Your task to perform on an android device: Search for Italian restaurants on Maps Image 0: 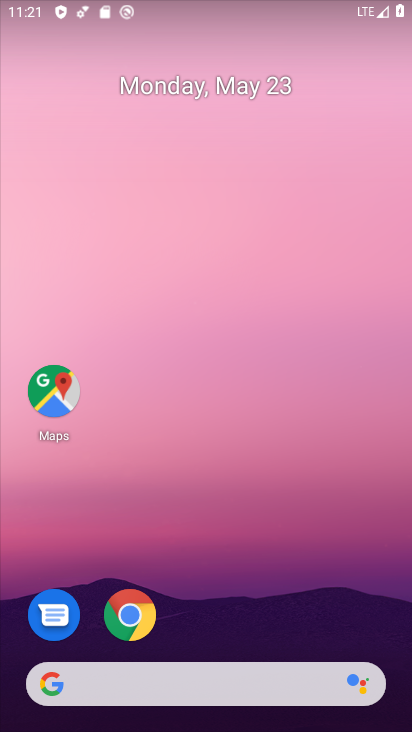
Step 0: click (126, 621)
Your task to perform on an android device: Search for Italian restaurants on Maps Image 1: 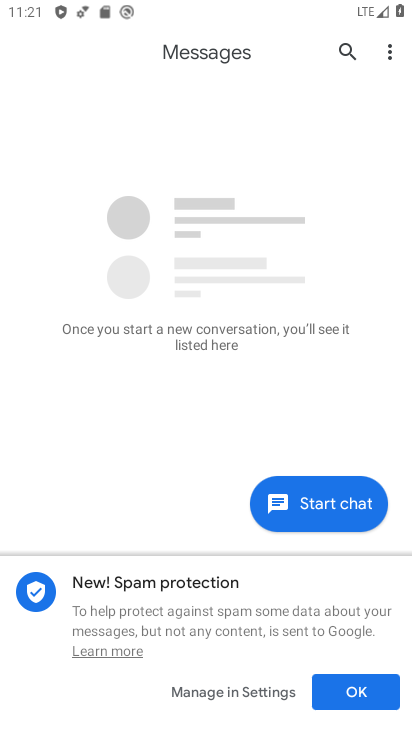
Step 1: press home button
Your task to perform on an android device: Search for Italian restaurants on Maps Image 2: 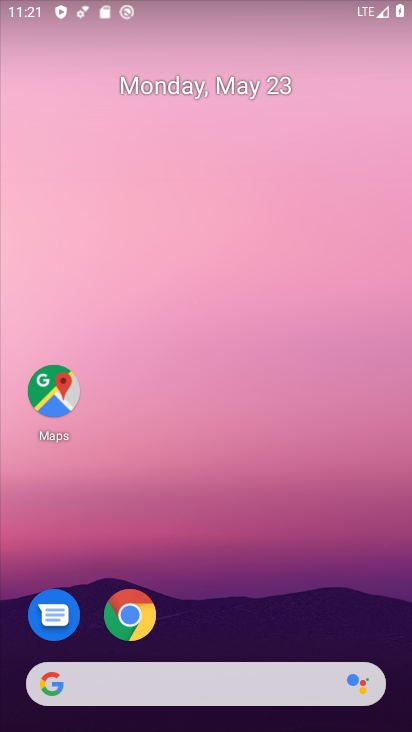
Step 2: click (57, 401)
Your task to perform on an android device: Search for Italian restaurants on Maps Image 3: 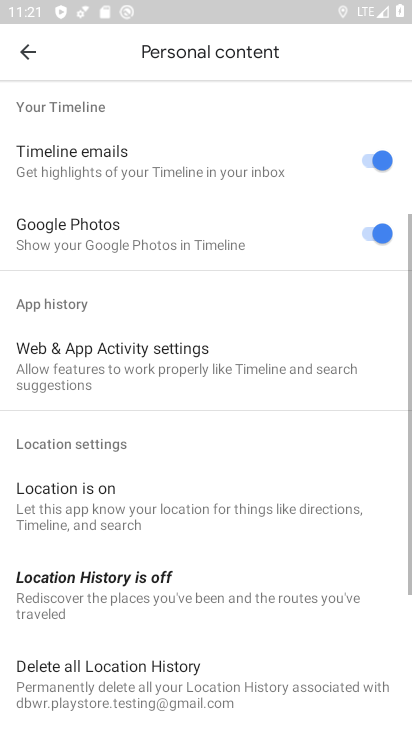
Step 3: click (29, 54)
Your task to perform on an android device: Search for Italian restaurants on Maps Image 4: 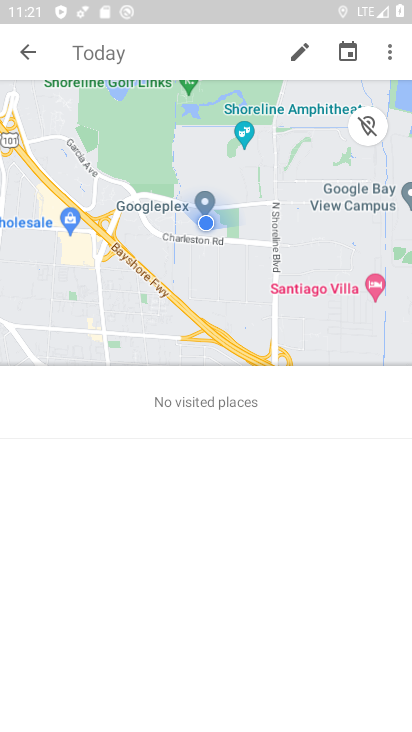
Step 4: click (29, 54)
Your task to perform on an android device: Search for Italian restaurants on Maps Image 5: 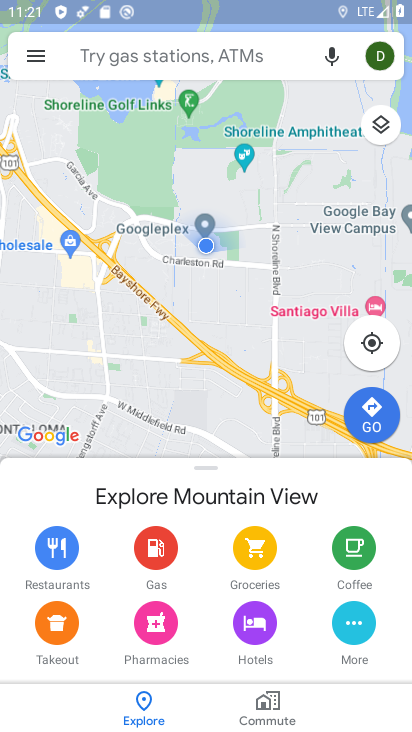
Step 5: click (228, 47)
Your task to perform on an android device: Search for Italian restaurants on Maps Image 6: 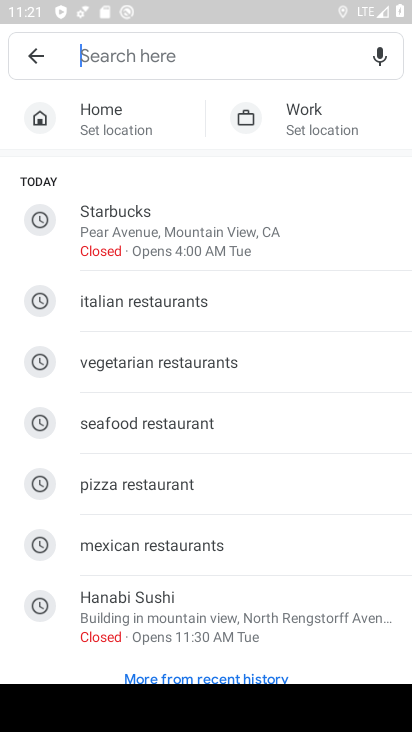
Step 6: click (114, 301)
Your task to perform on an android device: Search for Italian restaurants on Maps Image 7: 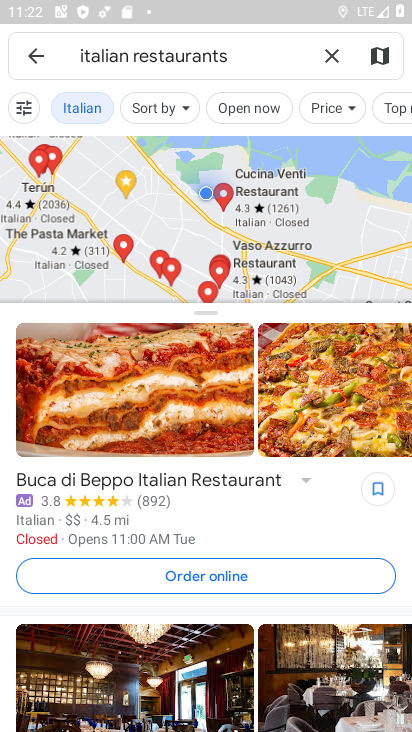
Step 7: task complete